Your task to perform on an android device: uninstall "Messenger Lite" Image 0: 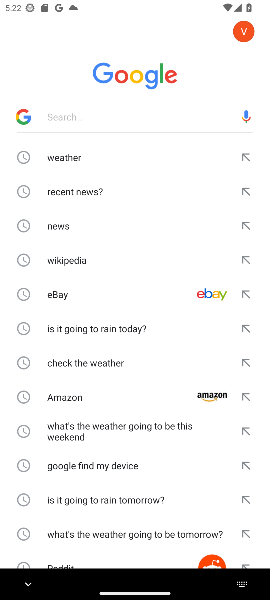
Step 0: press home button
Your task to perform on an android device: uninstall "Messenger Lite" Image 1: 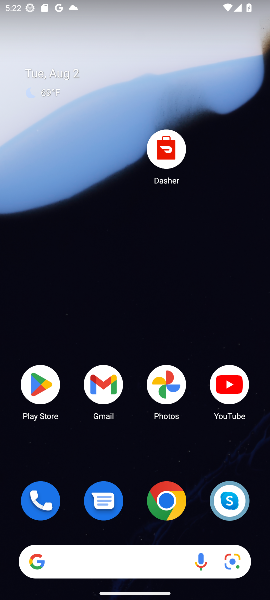
Step 1: click (40, 393)
Your task to perform on an android device: uninstall "Messenger Lite" Image 2: 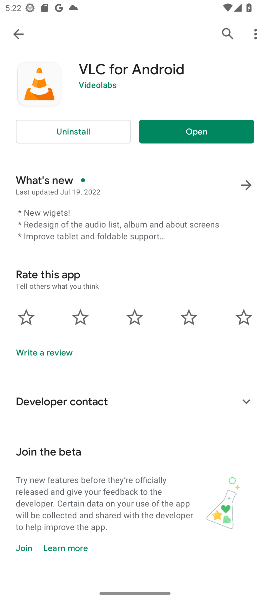
Step 2: click (228, 31)
Your task to perform on an android device: uninstall "Messenger Lite" Image 3: 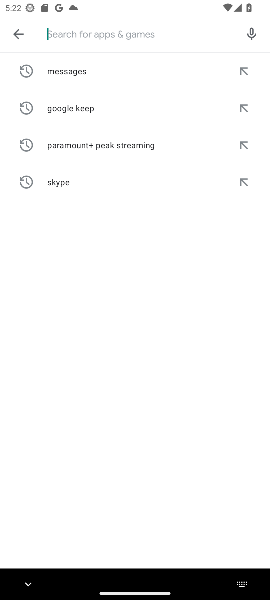
Step 3: type "Messenger Lite"
Your task to perform on an android device: uninstall "Messenger Lite" Image 4: 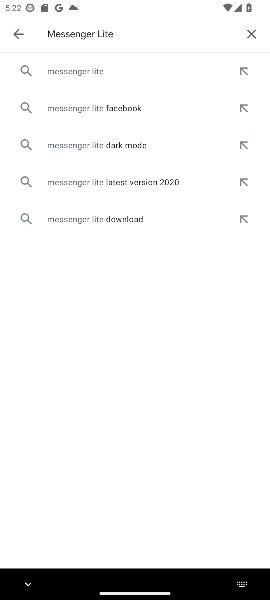
Step 4: click (65, 72)
Your task to perform on an android device: uninstall "Messenger Lite" Image 5: 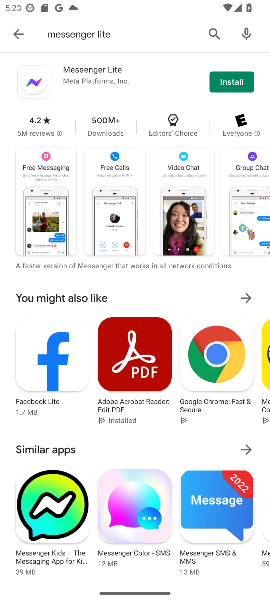
Step 5: task complete